Your task to perform on an android device: turn off location Image 0: 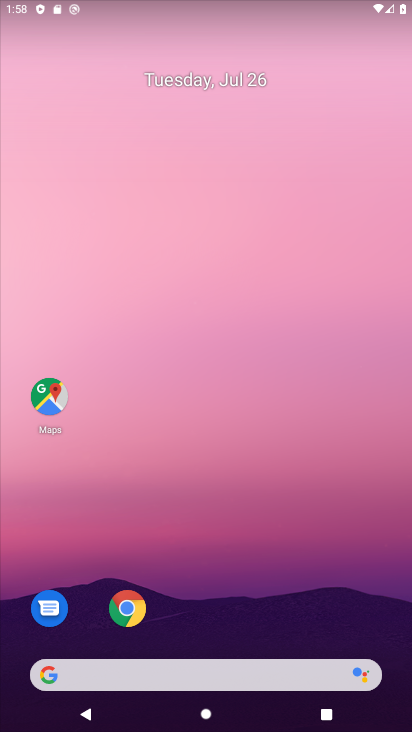
Step 0: drag from (212, 567) to (289, 138)
Your task to perform on an android device: turn off location Image 1: 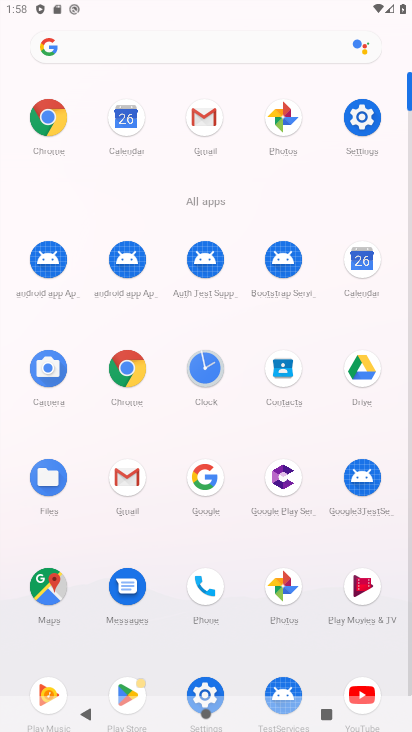
Step 1: click (194, 687)
Your task to perform on an android device: turn off location Image 2: 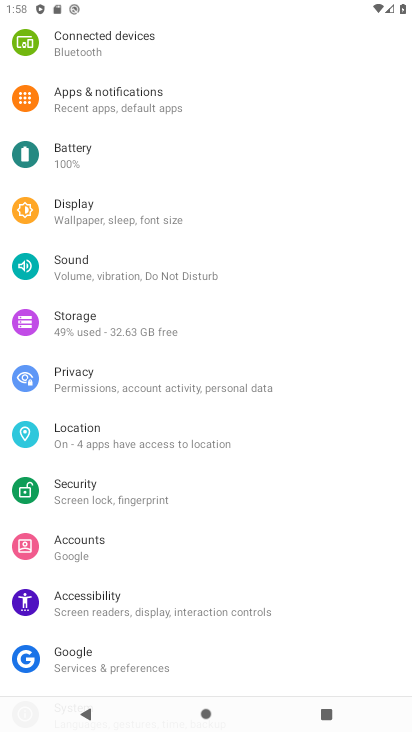
Step 2: click (93, 429)
Your task to perform on an android device: turn off location Image 3: 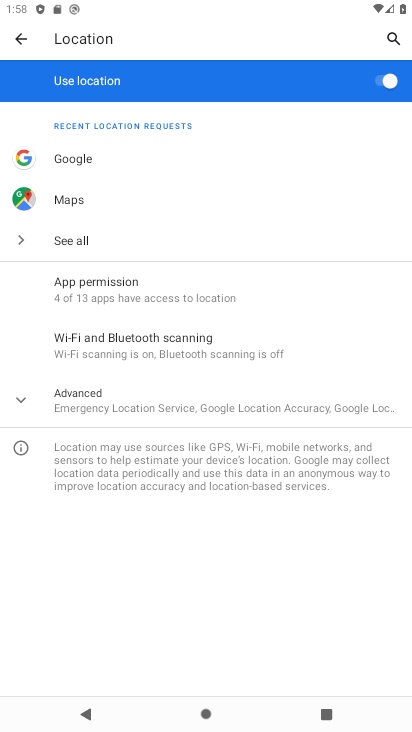
Step 3: click (383, 81)
Your task to perform on an android device: turn off location Image 4: 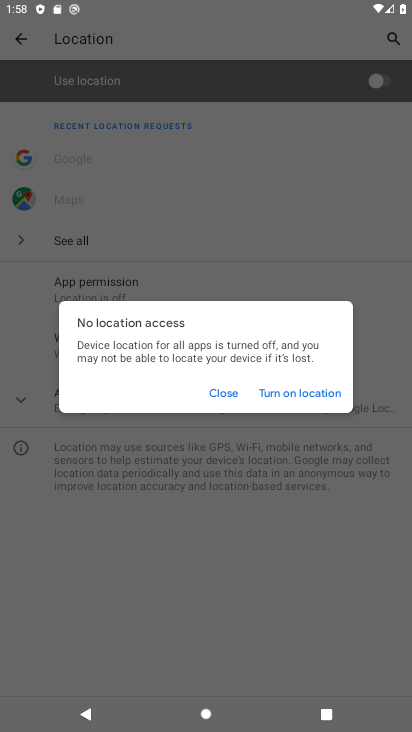
Step 4: task complete